Your task to perform on an android device: show emergency info Image 0: 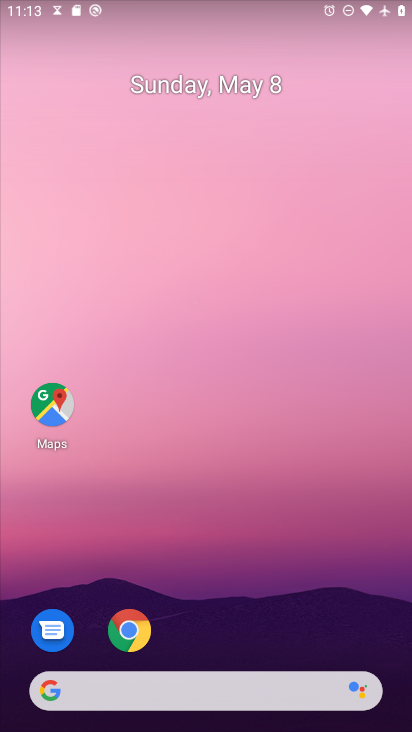
Step 0: drag from (154, 686) to (275, 137)
Your task to perform on an android device: show emergency info Image 1: 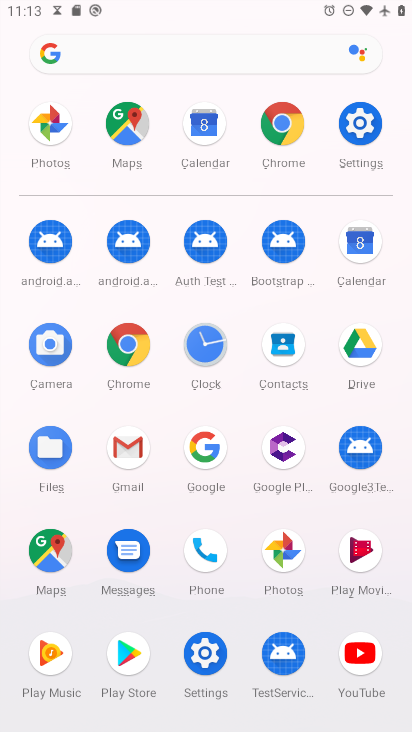
Step 1: click (362, 123)
Your task to perform on an android device: show emergency info Image 2: 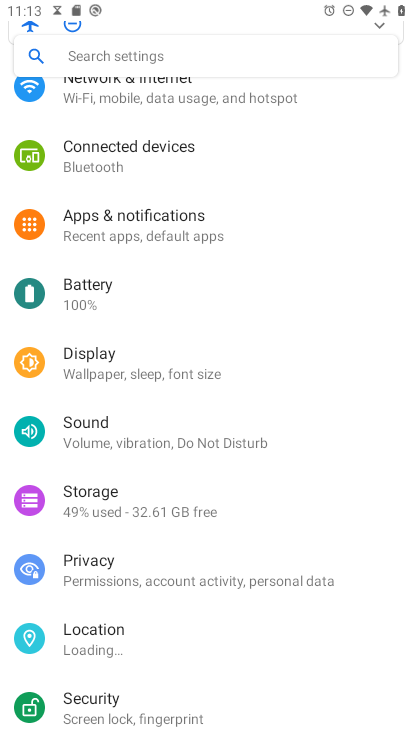
Step 2: drag from (212, 668) to (228, 219)
Your task to perform on an android device: show emergency info Image 3: 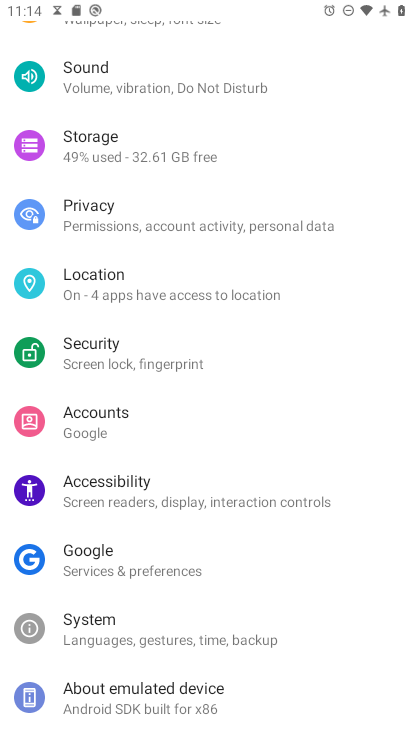
Step 3: click (148, 696)
Your task to perform on an android device: show emergency info Image 4: 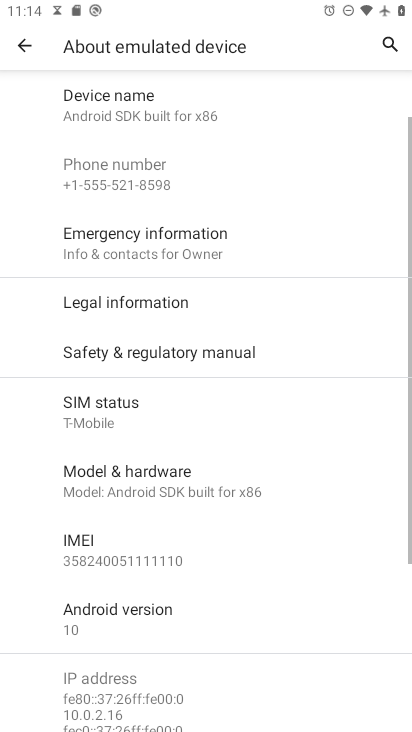
Step 4: click (142, 237)
Your task to perform on an android device: show emergency info Image 5: 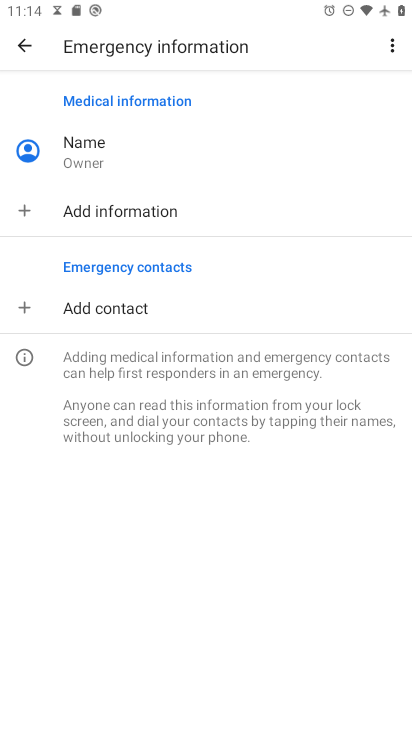
Step 5: task complete